Your task to perform on an android device: turn pop-ups off in chrome Image 0: 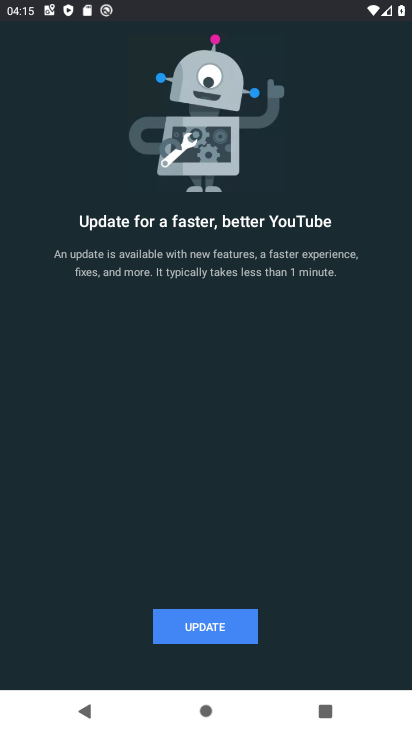
Step 0: press home button
Your task to perform on an android device: turn pop-ups off in chrome Image 1: 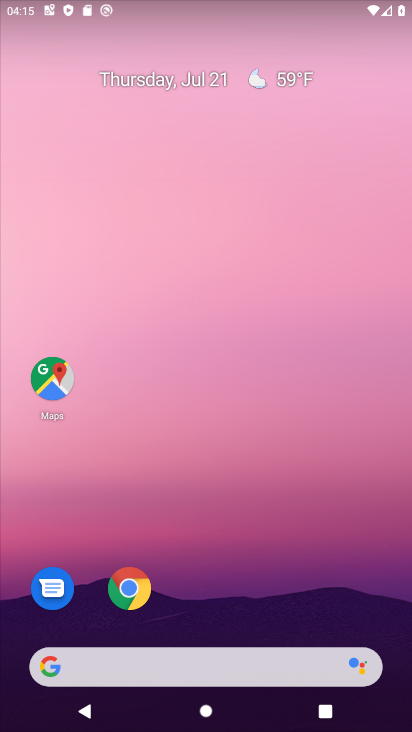
Step 1: click (125, 584)
Your task to perform on an android device: turn pop-ups off in chrome Image 2: 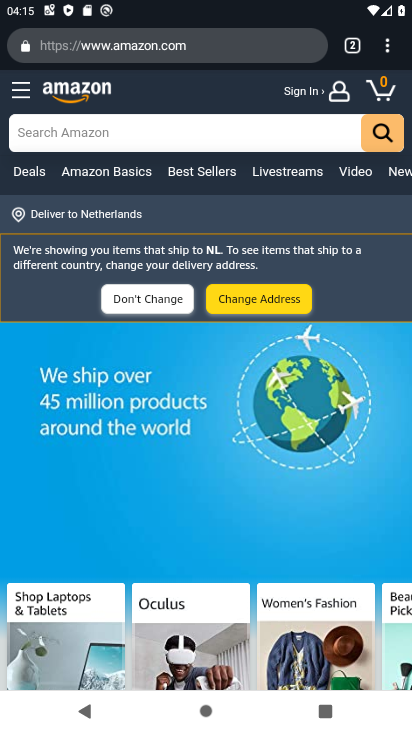
Step 2: click (389, 50)
Your task to perform on an android device: turn pop-ups off in chrome Image 3: 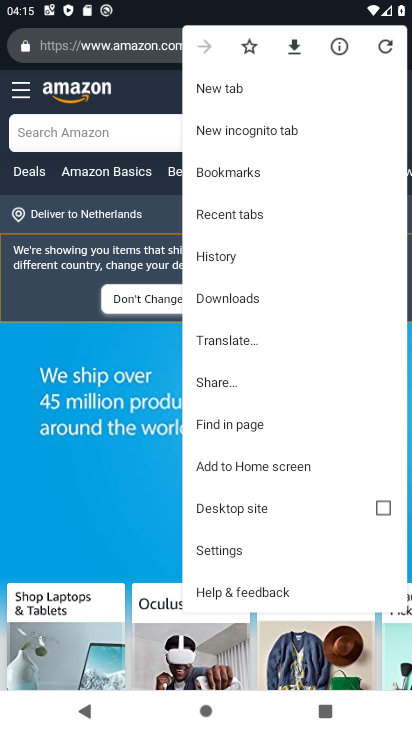
Step 3: click (225, 551)
Your task to perform on an android device: turn pop-ups off in chrome Image 4: 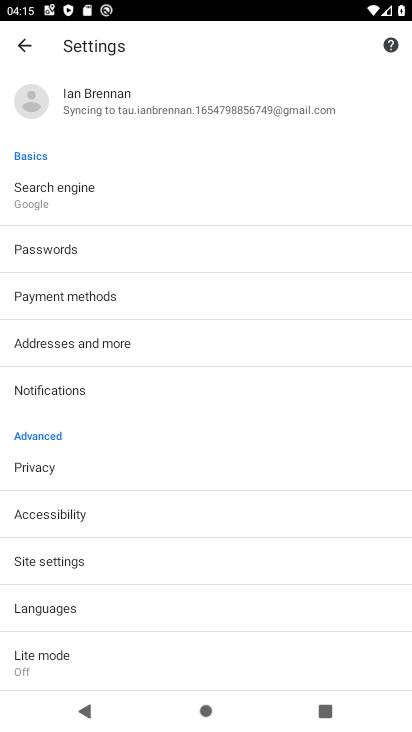
Step 4: click (71, 560)
Your task to perform on an android device: turn pop-ups off in chrome Image 5: 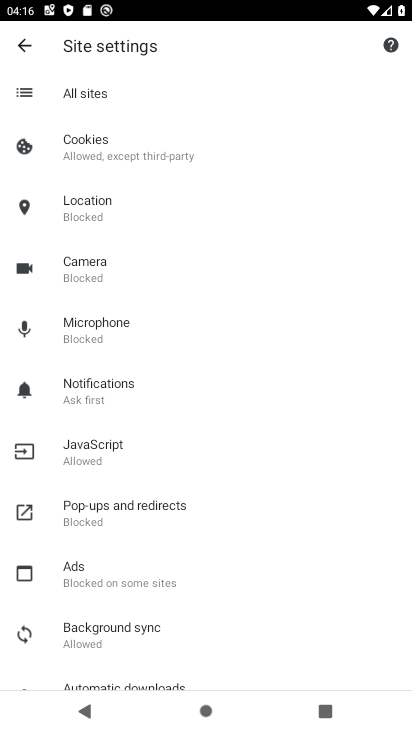
Step 5: click (85, 520)
Your task to perform on an android device: turn pop-ups off in chrome Image 6: 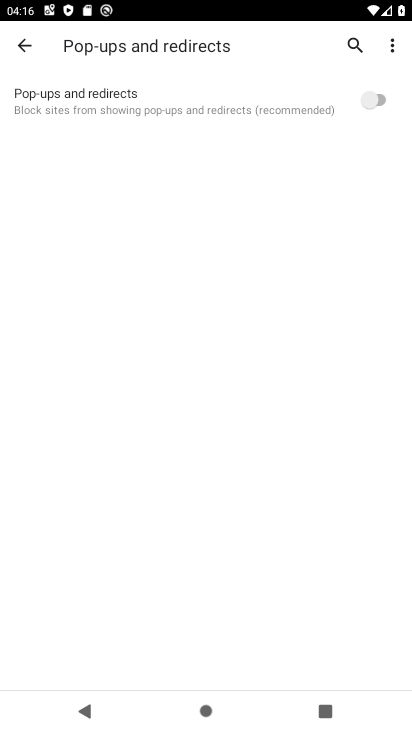
Step 6: task complete